Your task to perform on an android device: Open the Play Movies app and select the watchlist tab. Image 0: 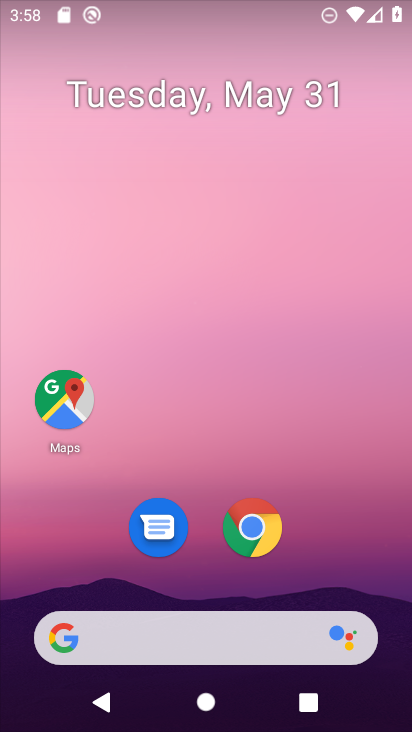
Step 0: drag from (173, 602) to (132, 68)
Your task to perform on an android device: Open the Play Movies app and select the watchlist tab. Image 1: 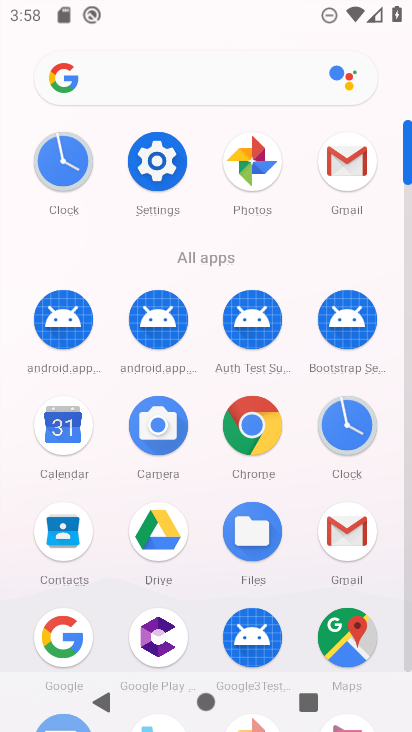
Step 1: drag from (308, 592) to (309, 205)
Your task to perform on an android device: Open the Play Movies app and select the watchlist tab. Image 2: 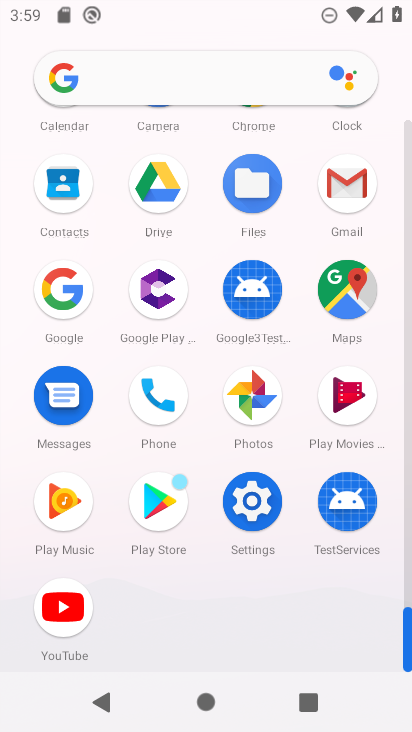
Step 2: click (336, 419)
Your task to perform on an android device: Open the Play Movies app and select the watchlist tab. Image 3: 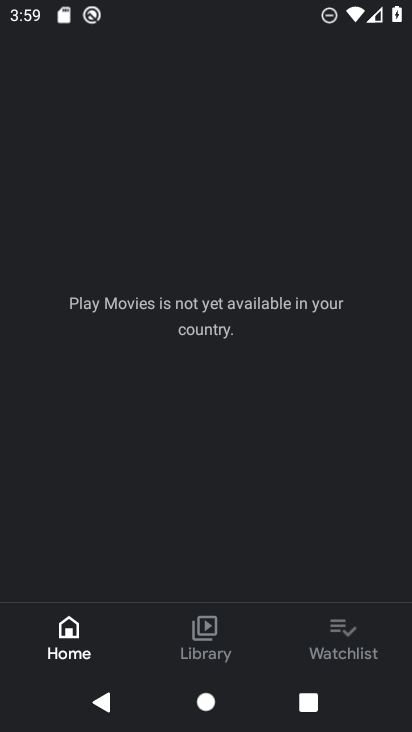
Step 3: click (357, 627)
Your task to perform on an android device: Open the Play Movies app and select the watchlist tab. Image 4: 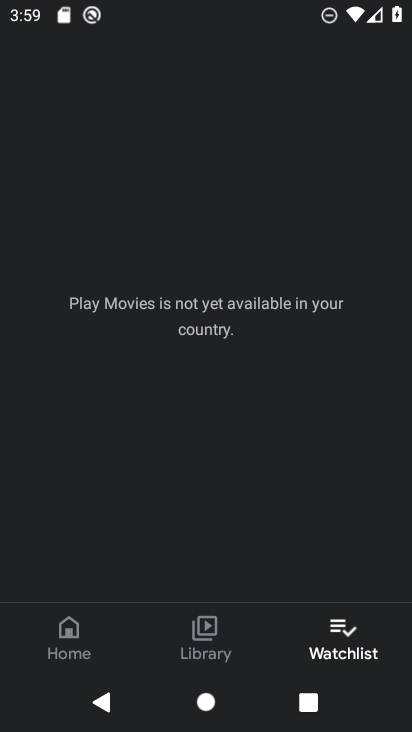
Step 4: task complete